Your task to perform on an android device: Search for "macbook pro 13 inch" on amazon, select the first entry, and add it to the cart. Image 0: 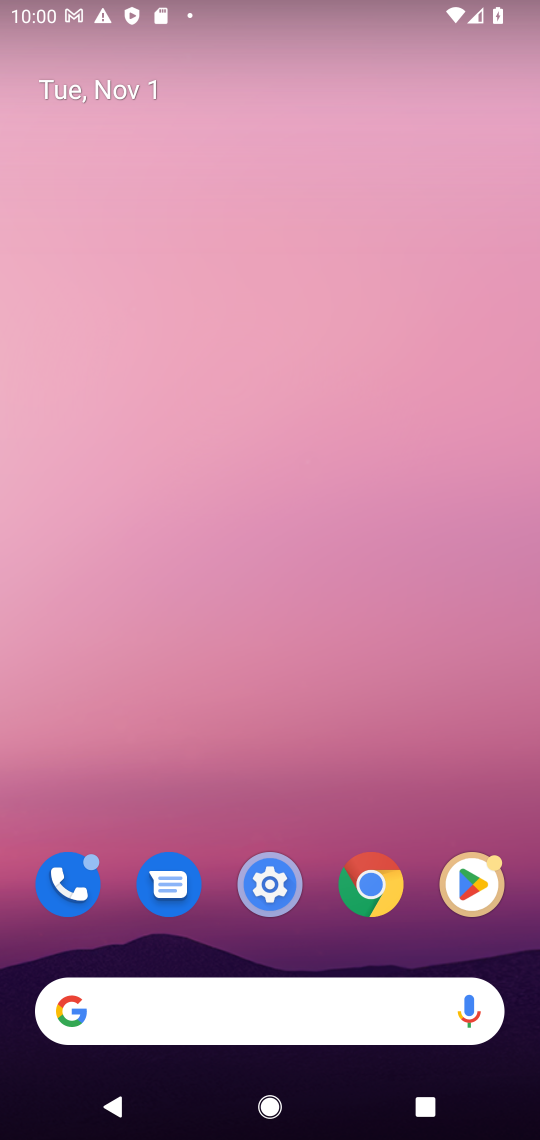
Step 0: click (373, 893)
Your task to perform on an android device: Search for "macbook pro 13 inch" on amazon, select the first entry, and add it to the cart. Image 1: 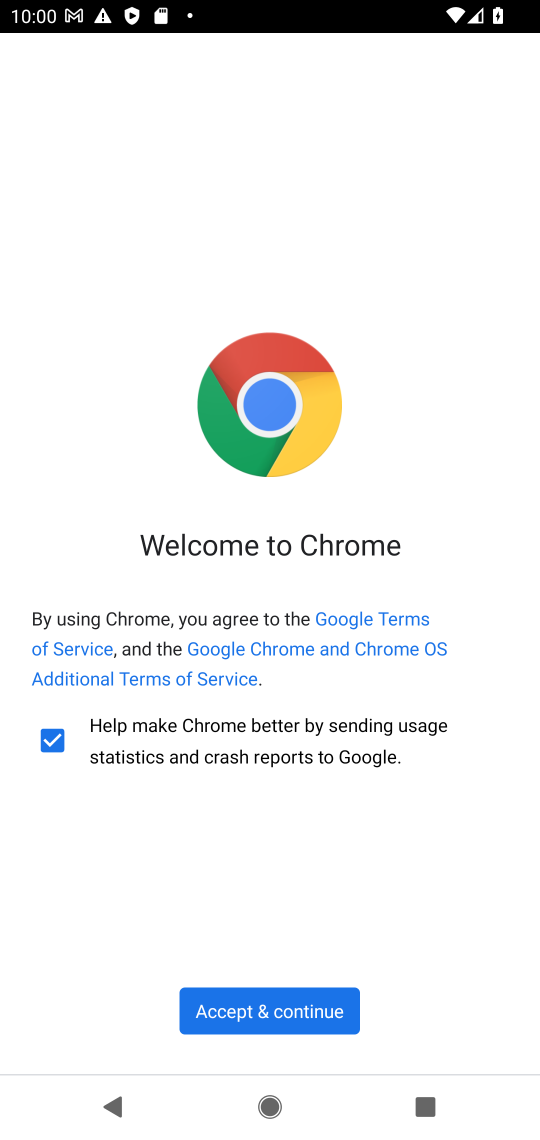
Step 1: click (318, 1015)
Your task to perform on an android device: Search for "macbook pro 13 inch" on amazon, select the first entry, and add it to the cart. Image 2: 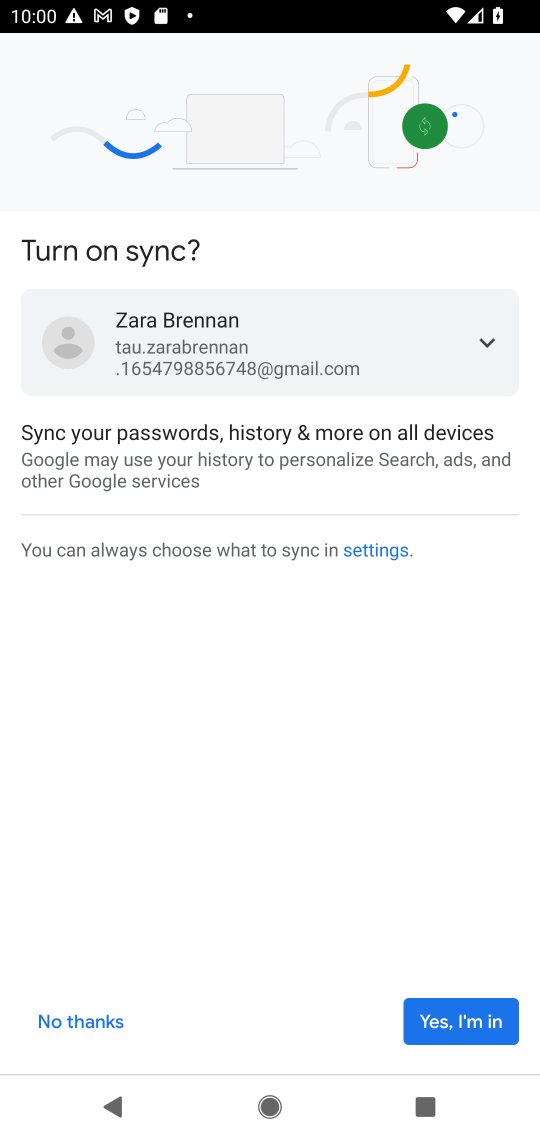
Step 2: click (471, 1033)
Your task to perform on an android device: Search for "macbook pro 13 inch" on amazon, select the first entry, and add it to the cart. Image 3: 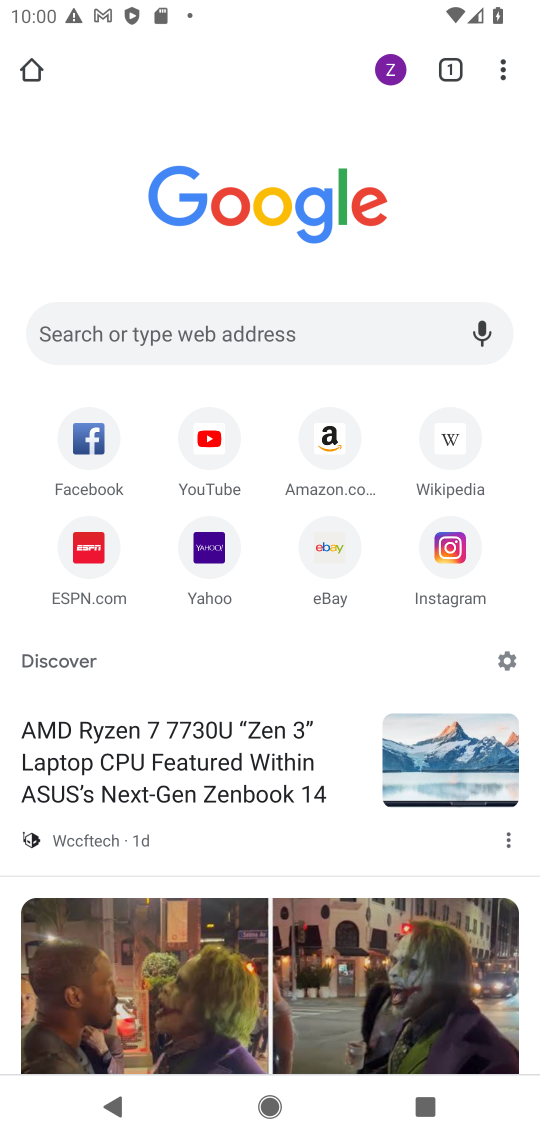
Step 3: click (220, 317)
Your task to perform on an android device: Search for "macbook pro 13 inch" on amazon, select the first entry, and add it to the cart. Image 4: 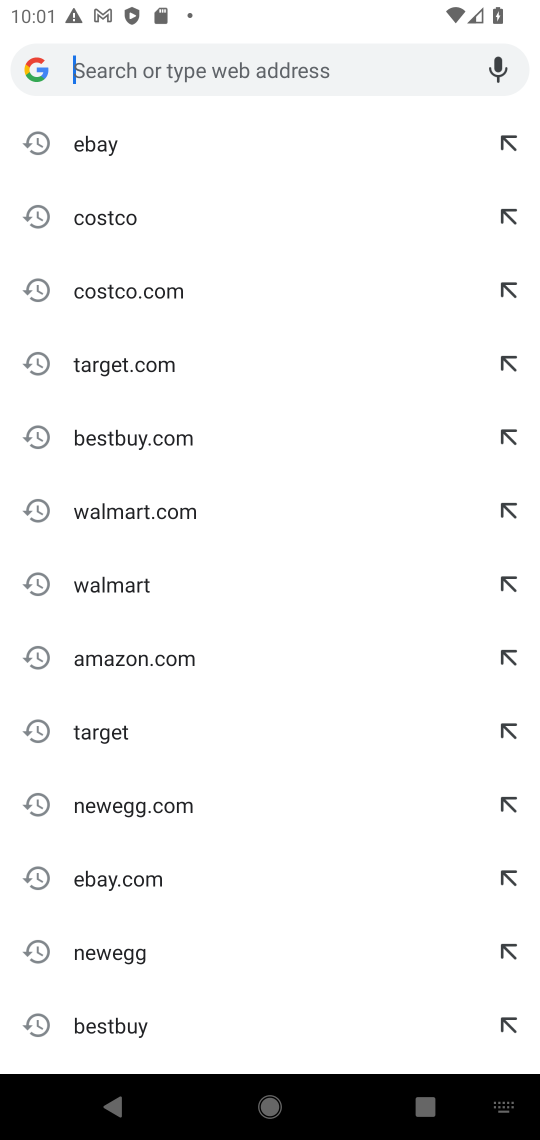
Step 4: type "amazon"
Your task to perform on an android device: Search for "macbook pro 13 inch" on amazon, select the first entry, and add it to the cart. Image 5: 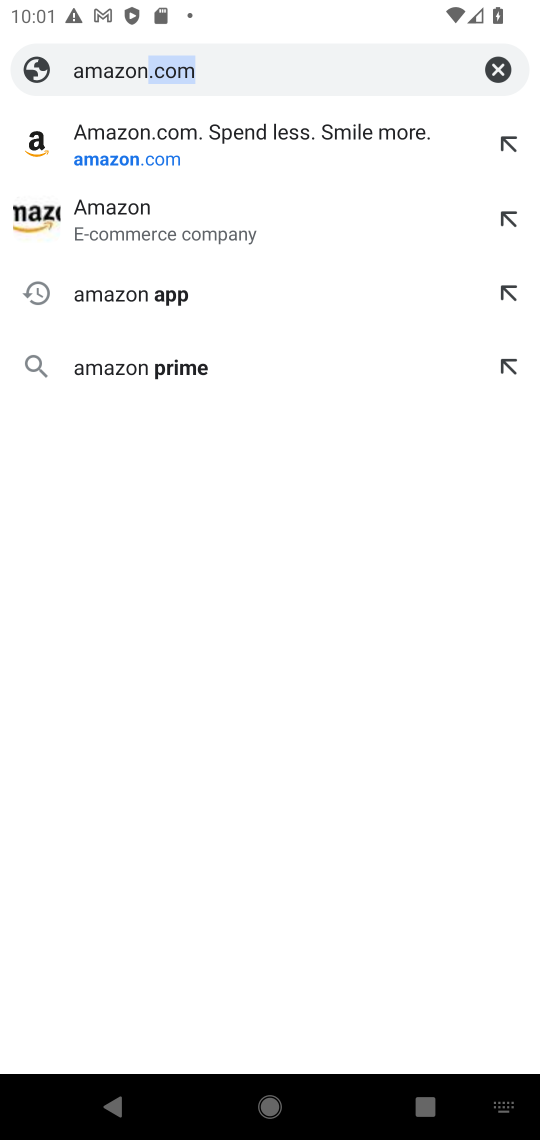
Step 5: press enter
Your task to perform on an android device: Search for "macbook pro 13 inch" on amazon, select the first entry, and add it to the cart. Image 6: 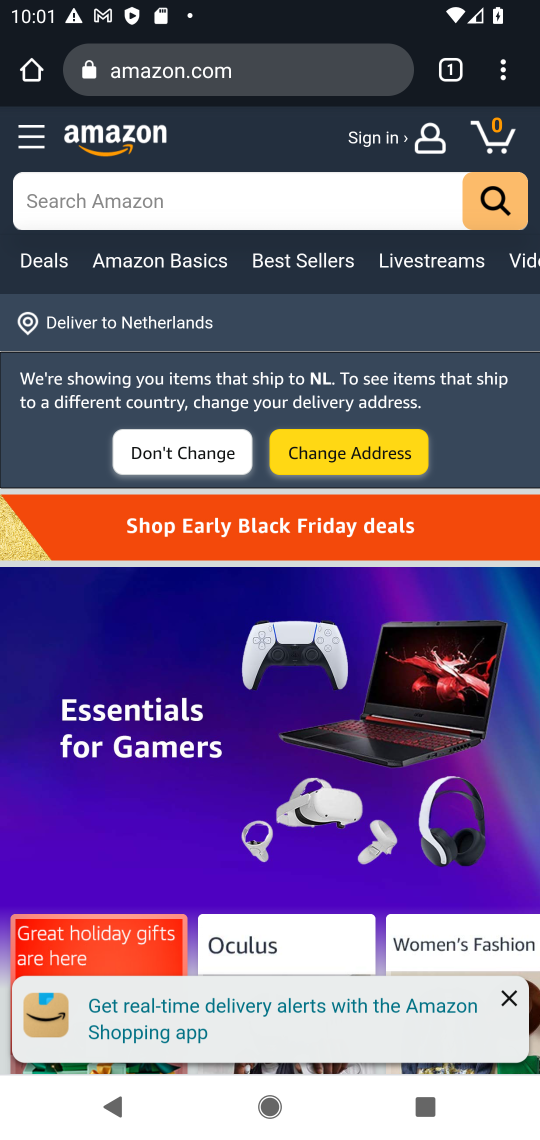
Step 6: click (265, 181)
Your task to perform on an android device: Search for "macbook pro 13 inch" on amazon, select the first entry, and add it to the cart. Image 7: 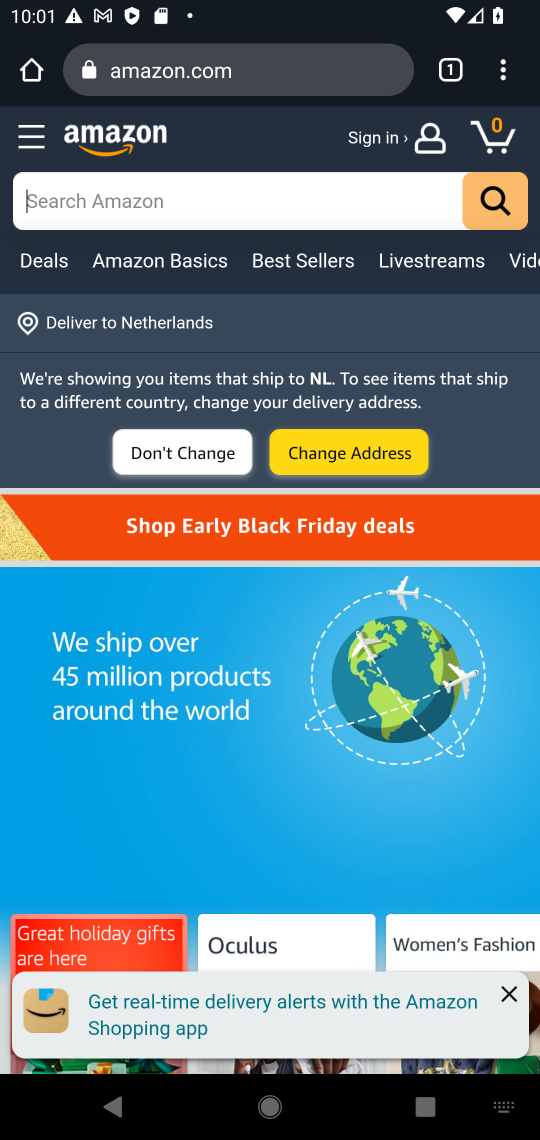
Step 7: type "macbook pro 13 inch"
Your task to perform on an android device: Search for "macbook pro 13 inch" on amazon, select the first entry, and add it to the cart. Image 8: 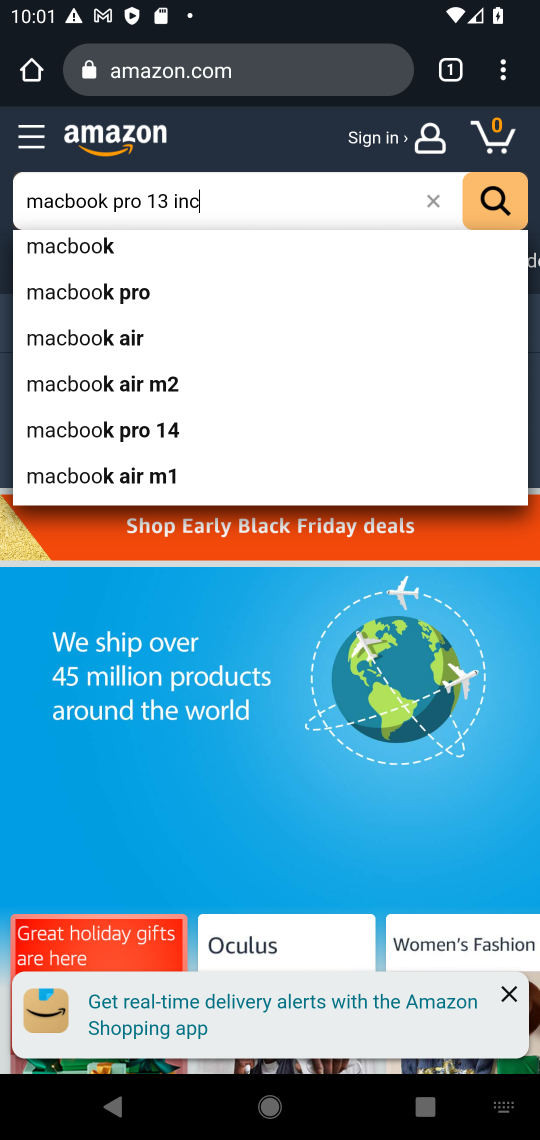
Step 8: type ""
Your task to perform on an android device: Search for "macbook pro 13 inch" on amazon, select the first entry, and add it to the cart. Image 9: 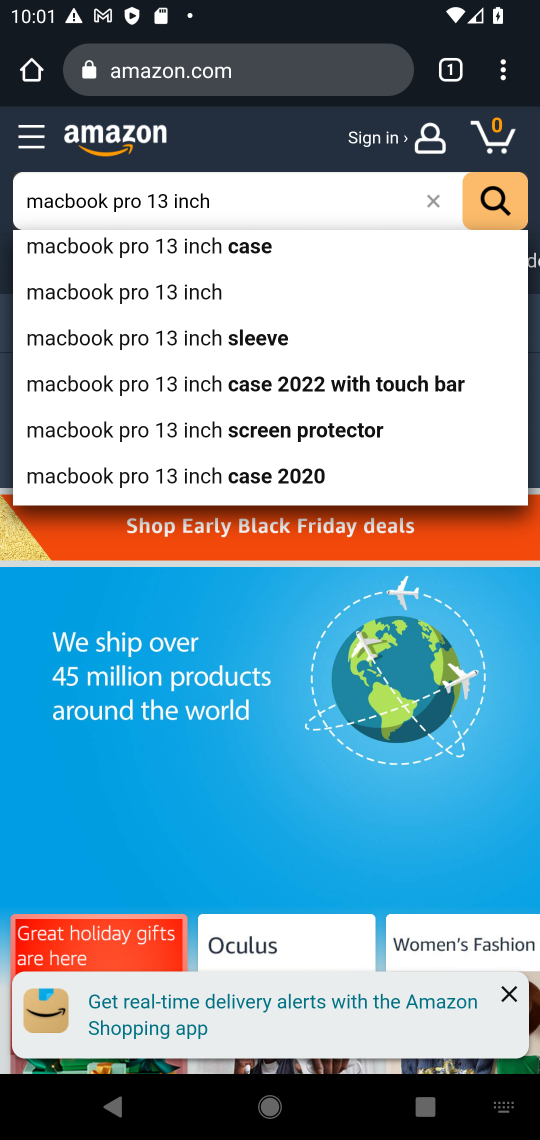
Step 9: press enter
Your task to perform on an android device: Search for "macbook pro 13 inch" on amazon, select the first entry, and add it to the cart. Image 10: 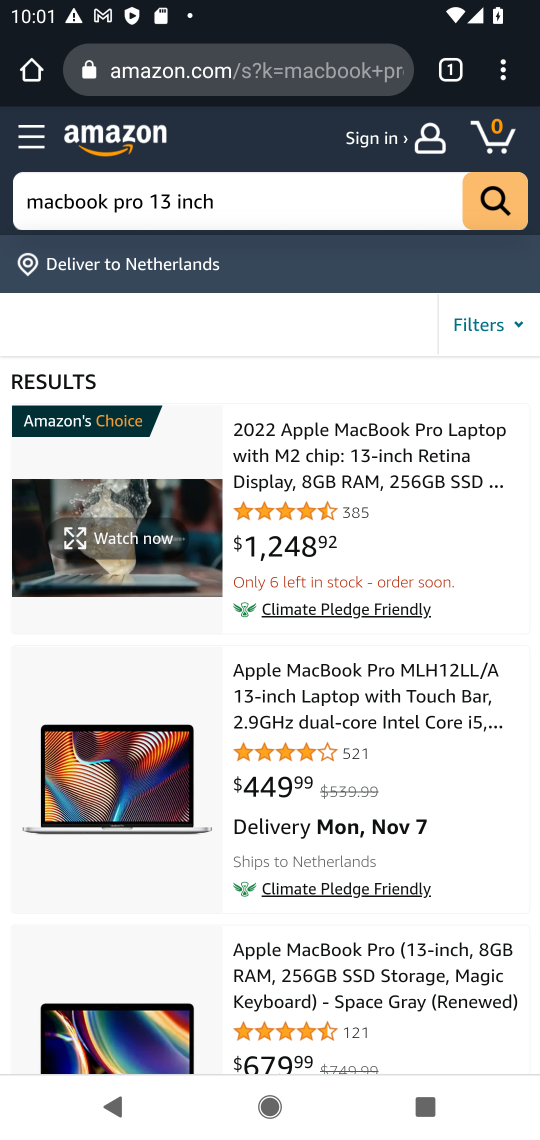
Step 10: click (315, 480)
Your task to perform on an android device: Search for "macbook pro 13 inch" on amazon, select the first entry, and add it to the cart. Image 11: 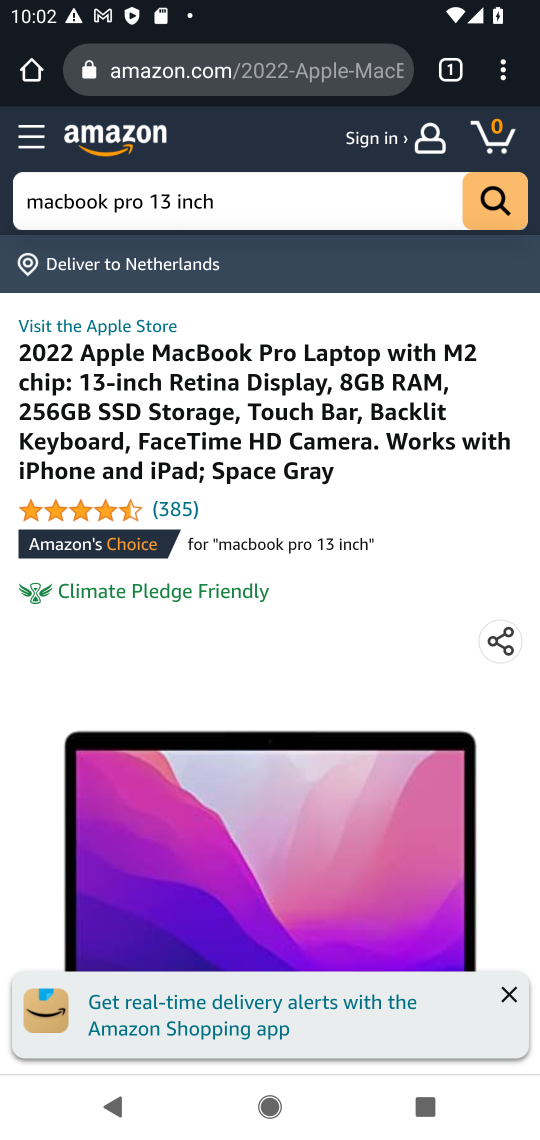
Step 11: drag from (366, 769) to (363, 318)
Your task to perform on an android device: Search for "macbook pro 13 inch" on amazon, select the first entry, and add it to the cart. Image 12: 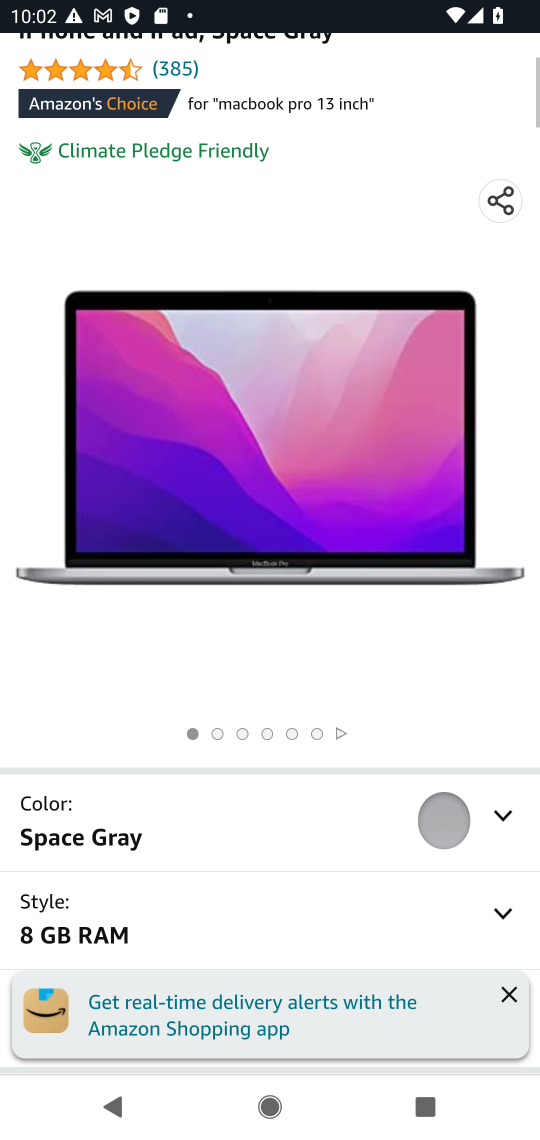
Step 12: drag from (320, 686) to (320, 353)
Your task to perform on an android device: Search for "macbook pro 13 inch" on amazon, select the first entry, and add it to the cart. Image 13: 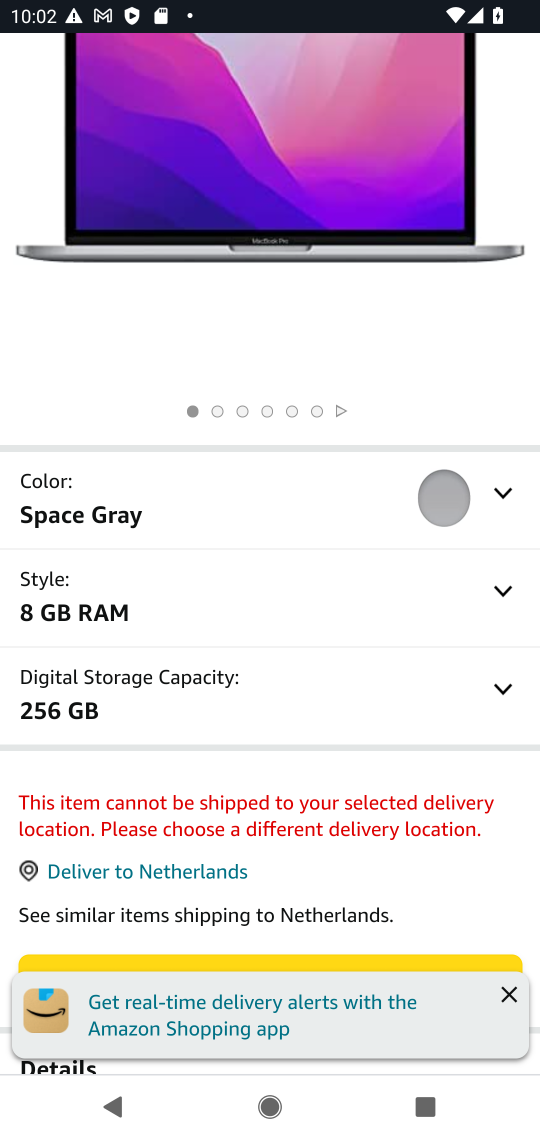
Step 13: drag from (311, 819) to (303, 370)
Your task to perform on an android device: Search for "macbook pro 13 inch" on amazon, select the first entry, and add it to the cart. Image 14: 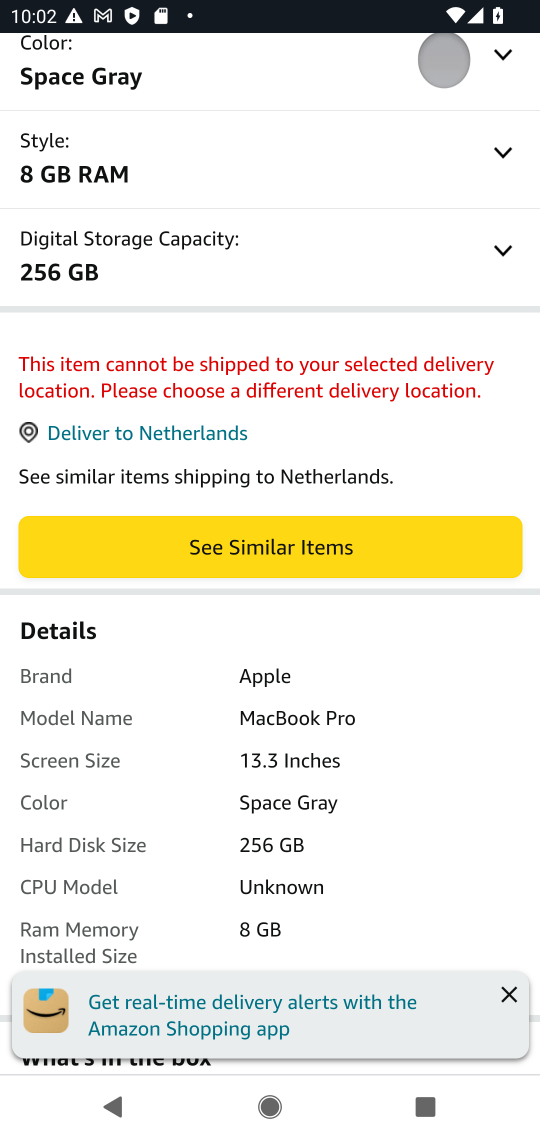
Step 14: click (267, 544)
Your task to perform on an android device: Search for "macbook pro 13 inch" on amazon, select the first entry, and add it to the cart. Image 15: 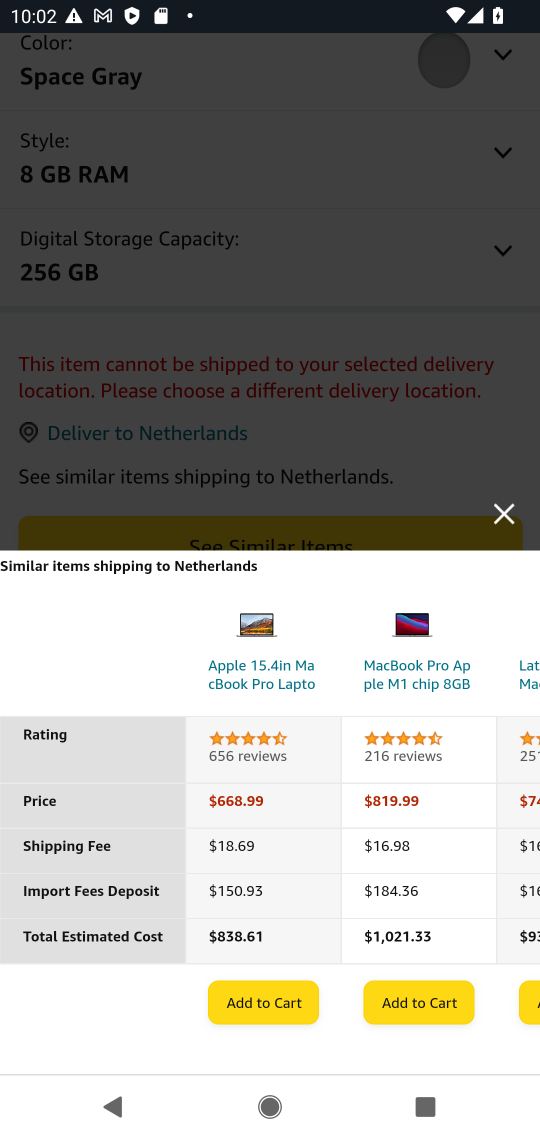
Step 15: click (506, 519)
Your task to perform on an android device: Search for "macbook pro 13 inch" on amazon, select the first entry, and add it to the cart. Image 16: 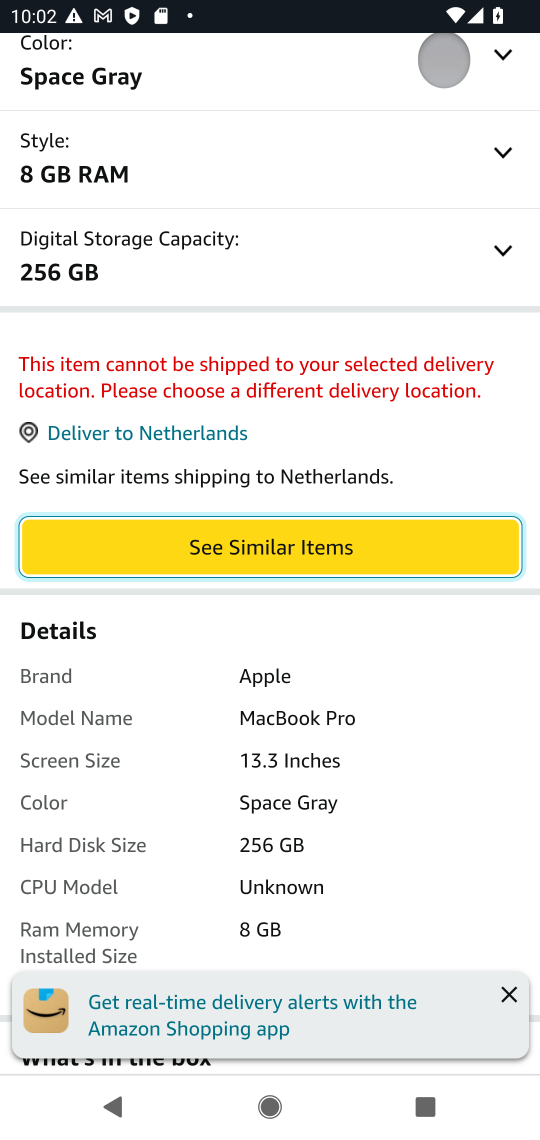
Step 16: click (168, 423)
Your task to perform on an android device: Search for "macbook pro 13 inch" on amazon, select the first entry, and add it to the cart. Image 17: 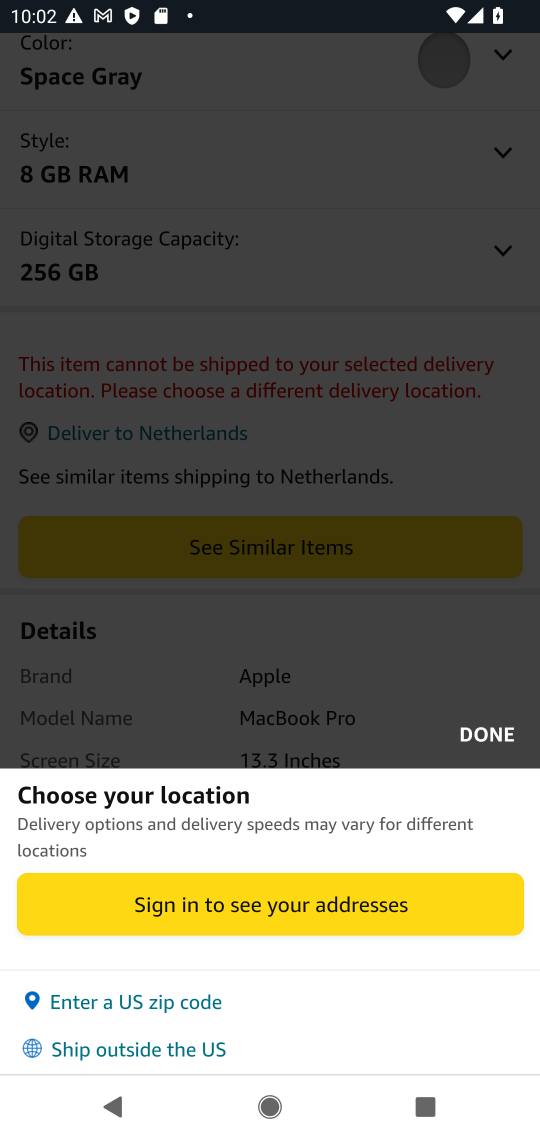
Step 17: click (170, 1054)
Your task to perform on an android device: Search for "macbook pro 13 inch" on amazon, select the first entry, and add it to the cart. Image 18: 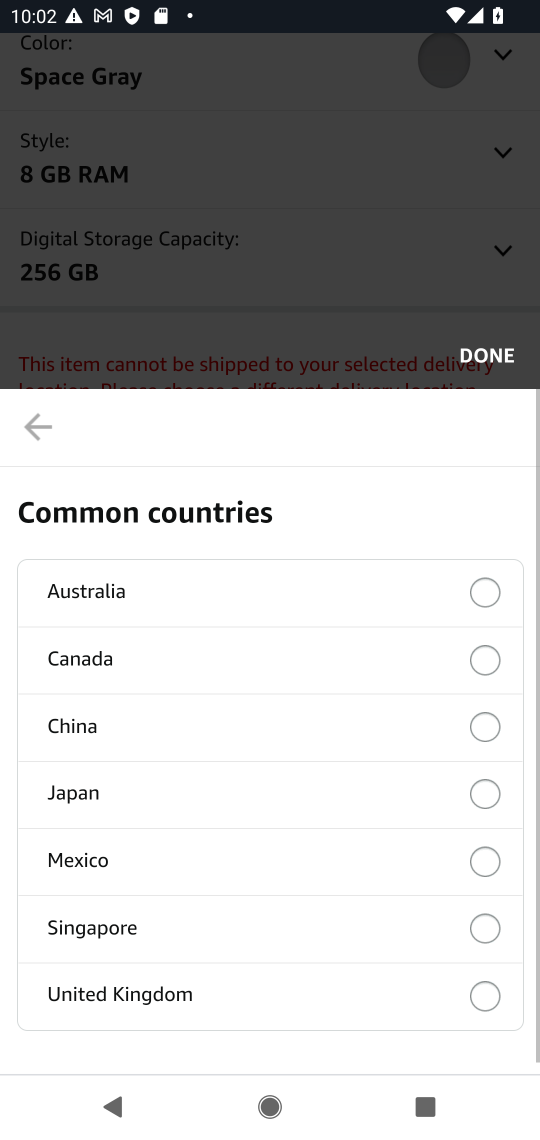
Step 18: click (477, 1006)
Your task to perform on an android device: Search for "macbook pro 13 inch" on amazon, select the first entry, and add it to the cart. Image 19: 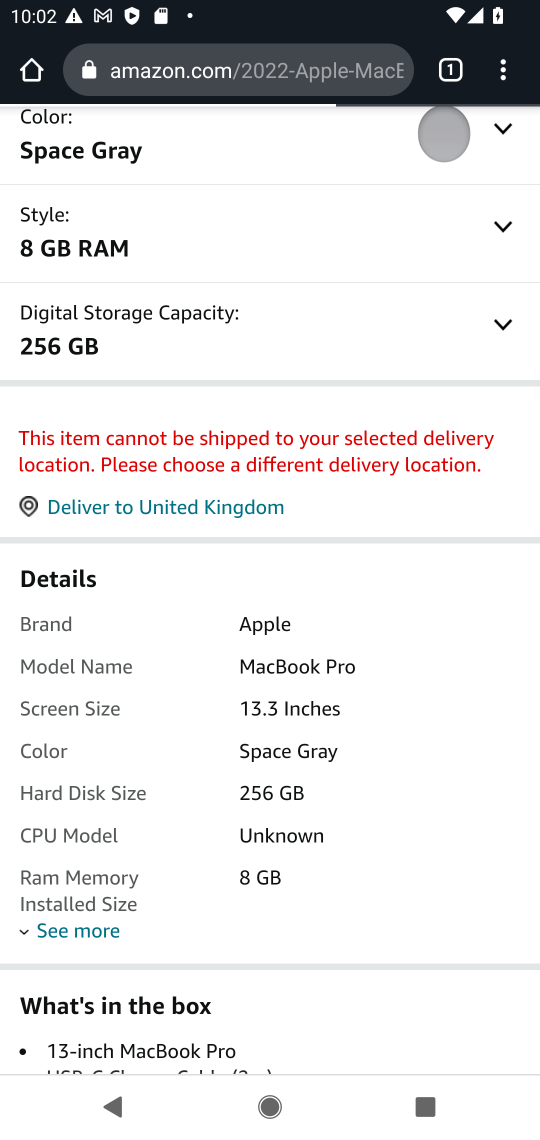
Step 19: drag from (364, 782) to (324, 269)
Your task to perform on an android device: Search for "macbook pro 13 inch" on amazon, select the first entry, and add it to the cart. Image 20: 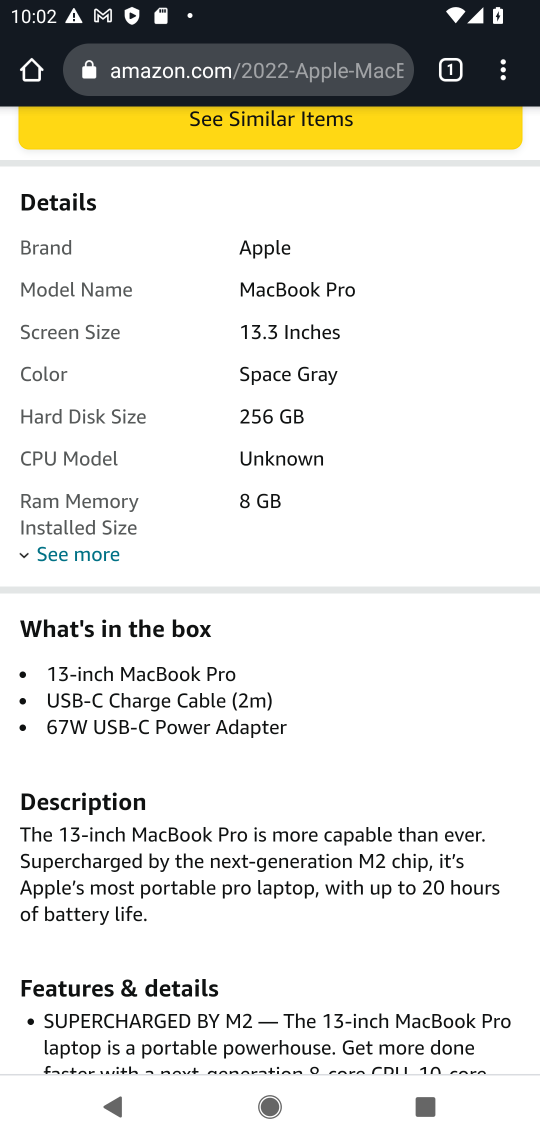
Step 20: drag from (326, 384) to (293, 812)
Your task to perform on an android device: Search for "macbook pro 13 inch" on amazon, select the first entry, and add it to the cart. Image 21: 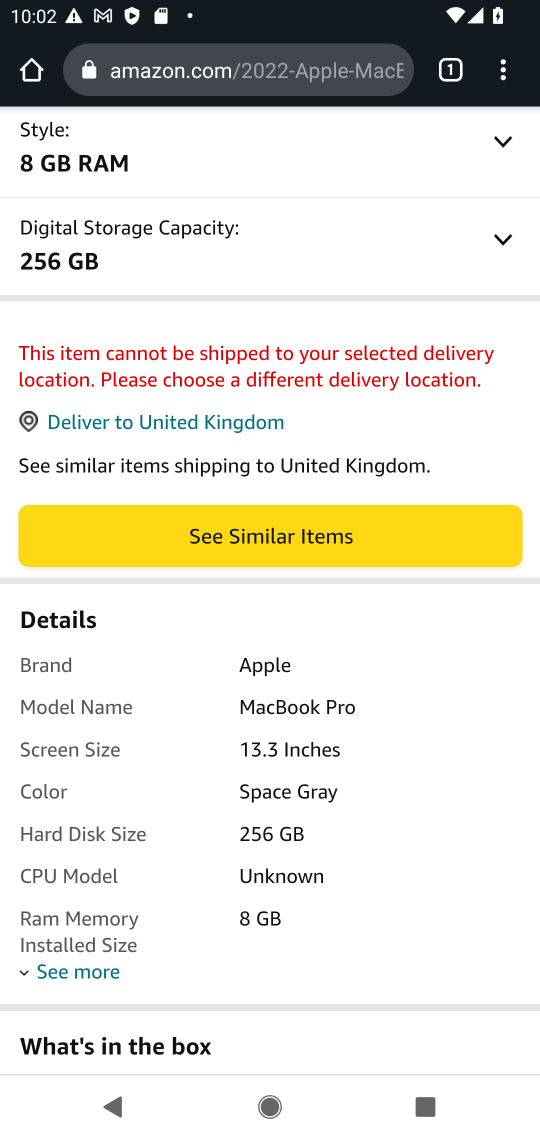
Step 21: click (139, 428)
Your task to perform on an android device: Search for "macbook pro 13 inch" on amazon, select the first entry, and add it to the cart. Image 22: 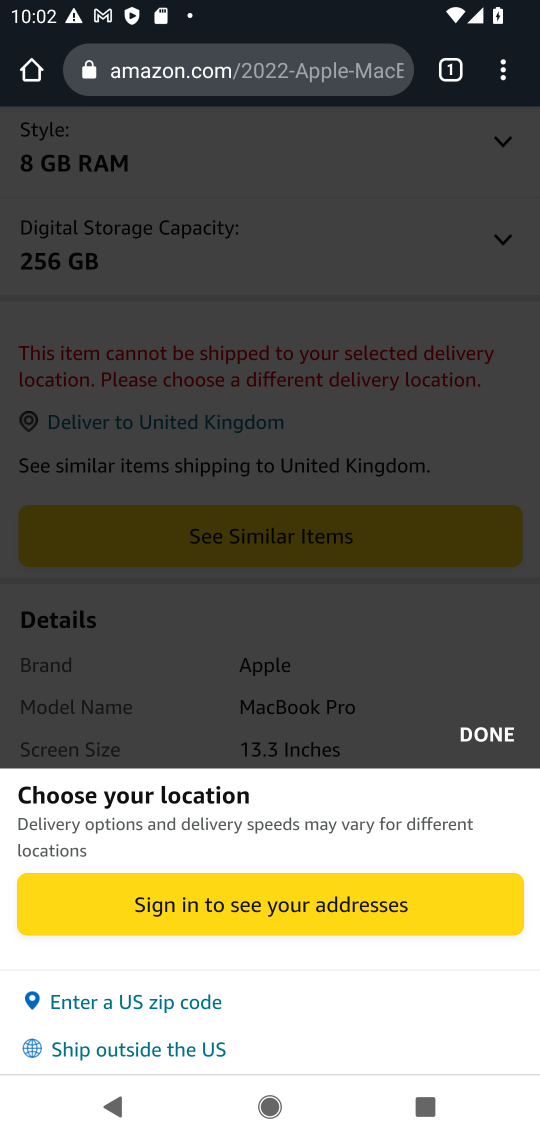
Step 22: click (157, 1006)
Your task to perform on an android device: Search for "macbook pro 13 inch" on amazon, select the first entry, and add it to the cart. Image 23: 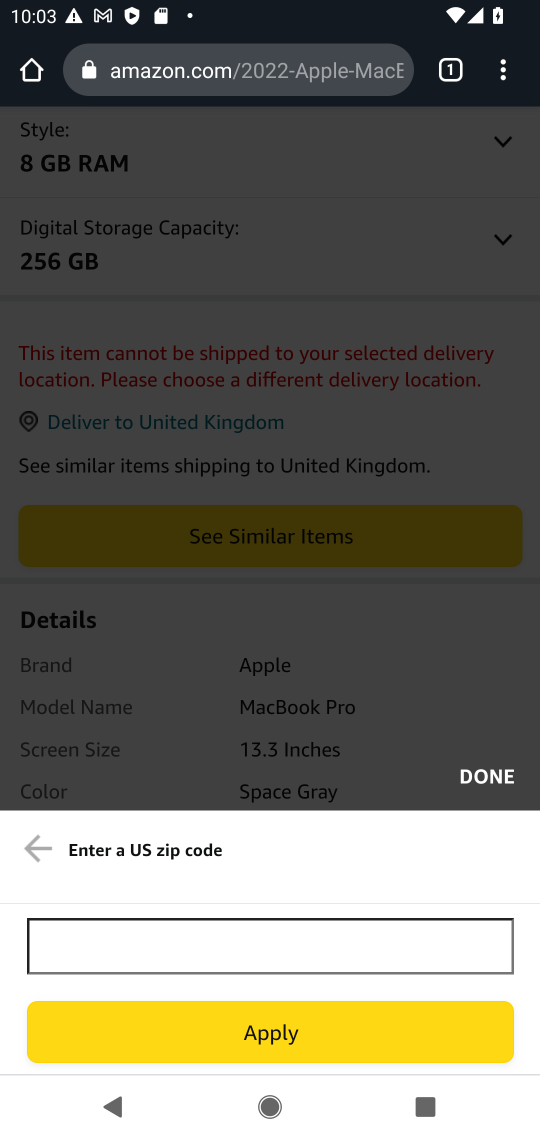
Step 23: click (303, 942)
Your task to perform on an android device: Search for "macbook pro 13 inch" on amazon, select the first entry, and add it to the cart. Image 24: 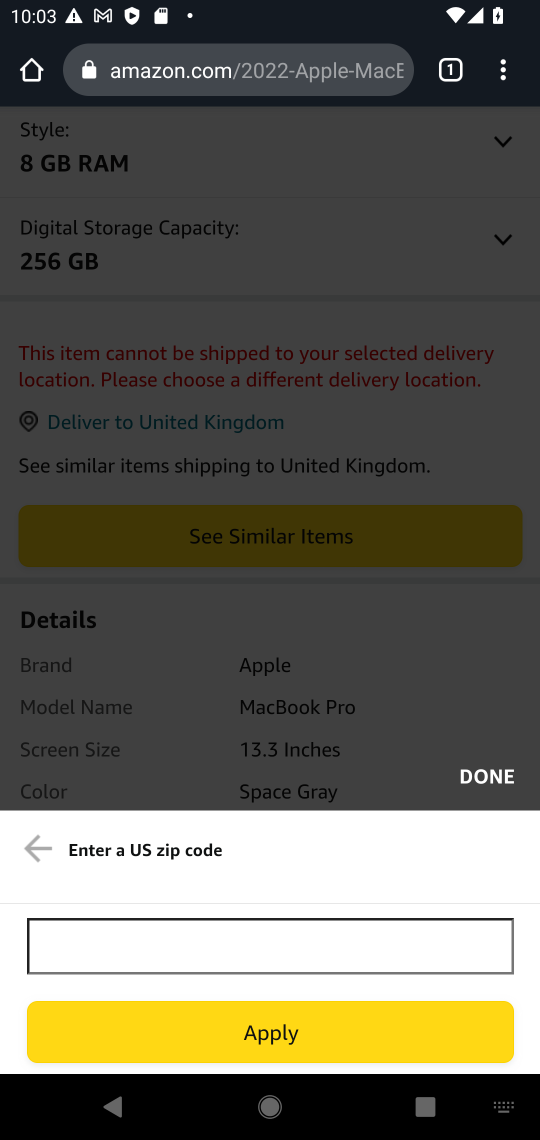
Step 24: click (295, 1044)
Your task to perform on an android device: Search for "macbook pro 13 inch" on amazon, select the first entry, and add it to the cart. Image 25: 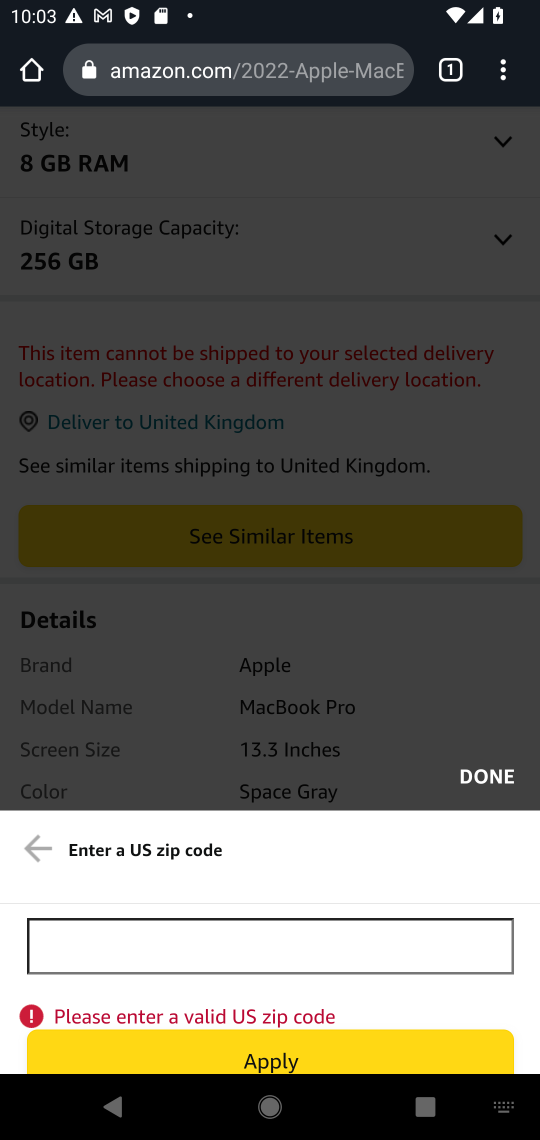
Step 25: click (472, 780)
Your task to perform on an android device: Search for "macbook pro 13 inch" on amazon, select the first entry, and add it to the cart. Image 26: 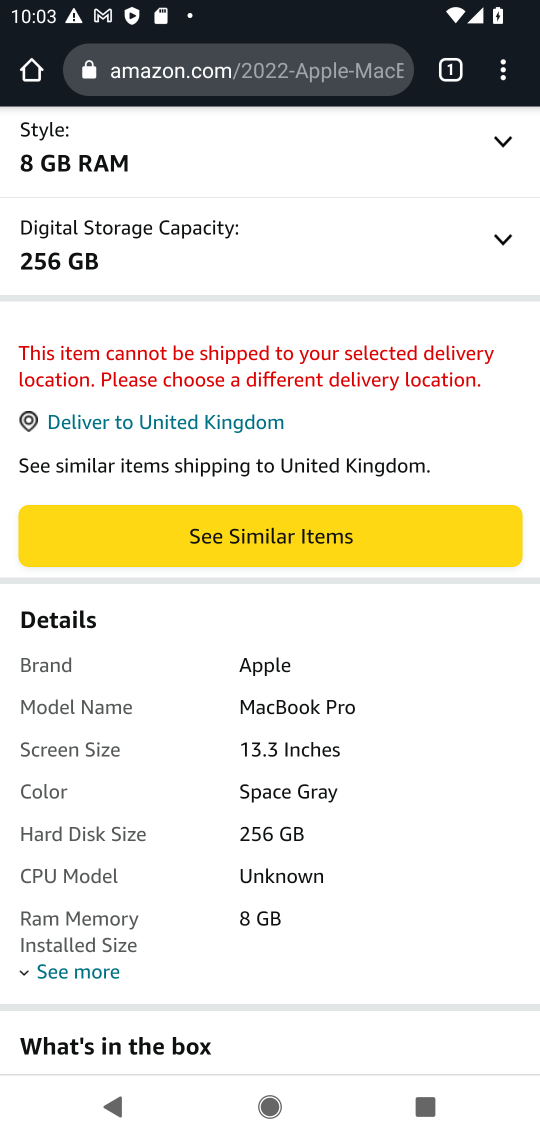
Step 26: task complete